Your task to perform on an android device: check data usage Image 0: 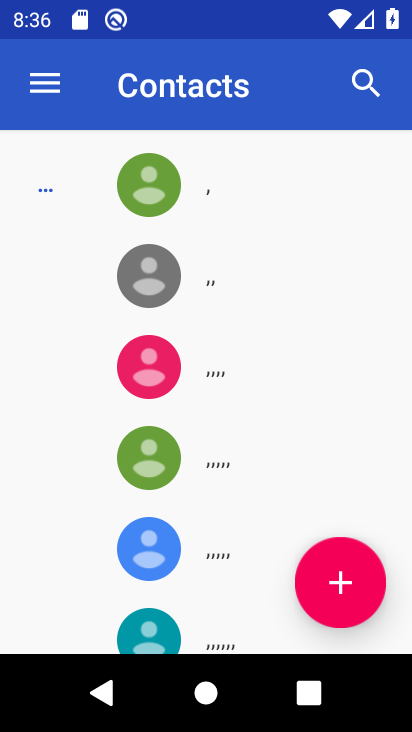
Step 0: press home button
Your task to perform on an android device: check data usage Image 1: 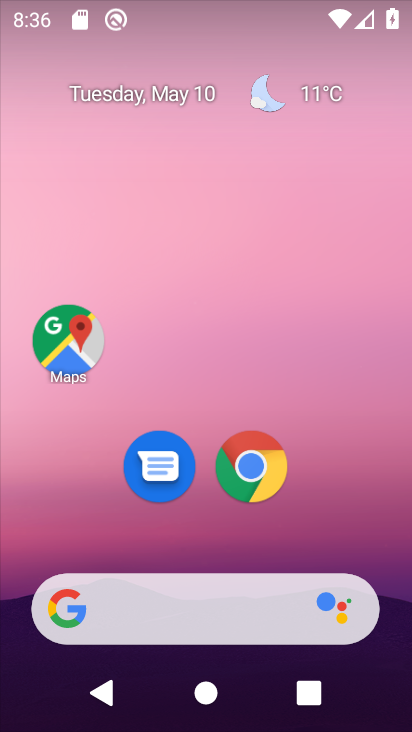
Step 1: drag from (209, 540) to (294, 0)
Your task to perform on an android device: check data usage Image 2: 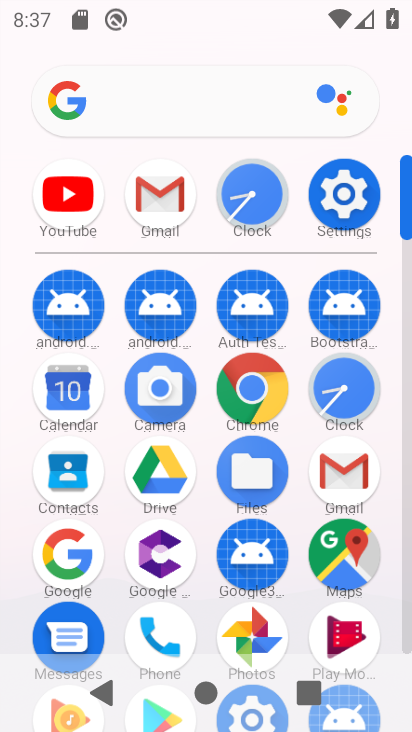
Step 2: click (342, 197)
Your task to perform on an android device: check data usage Image 3: 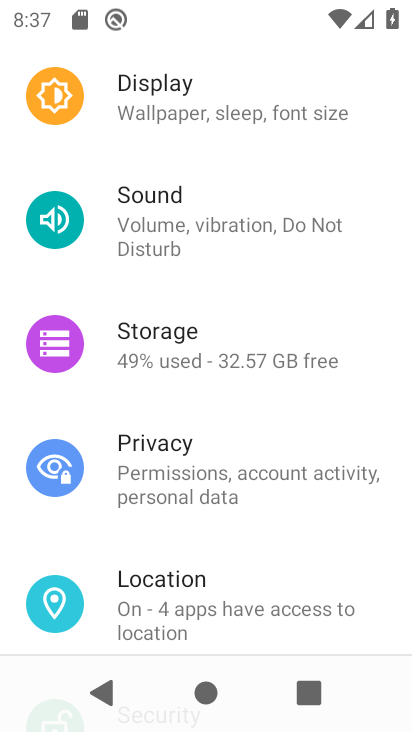
Step 3: drag from (256, 231) to (211, 632)
Your task to perform on an android device: check data usage Image 4: 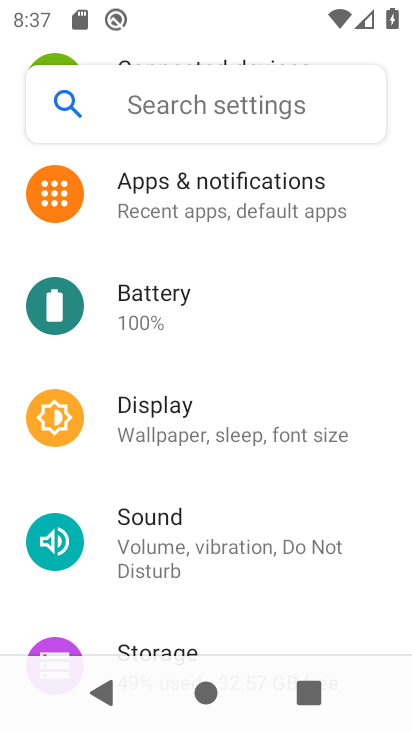
Step 4: drag from (202, 549) to (200, 659)
Your task to perform on an android device: check data usage Image 5: 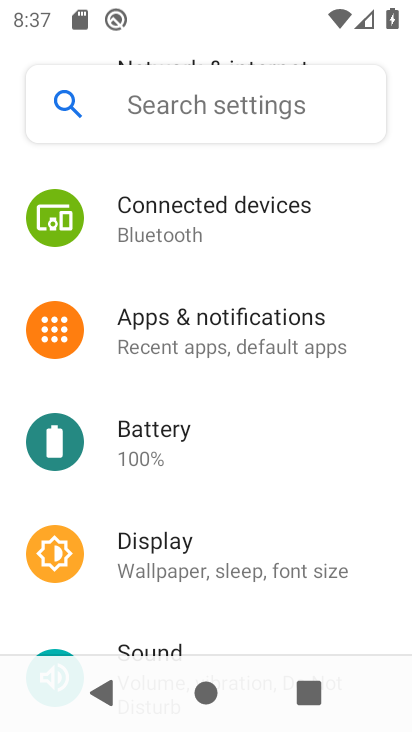
Step 5: drag from (205, 212) to (233, 731)
Your task to perform on an android device: check data usage Image 6: 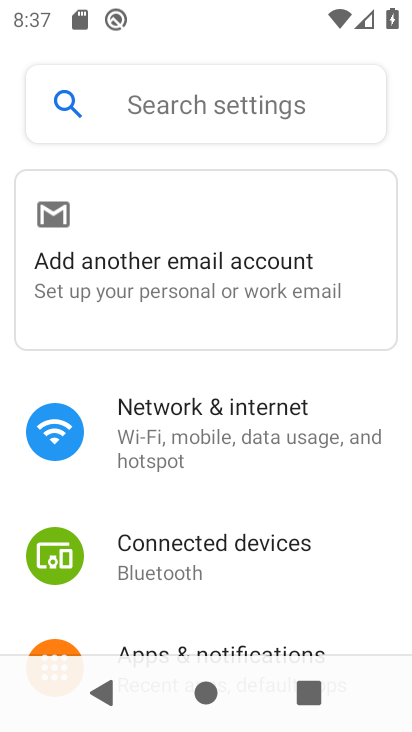
Step 6: drag from (248, 568) to (248, 498)
Your task to perform on an android device: check data usage Image 7: 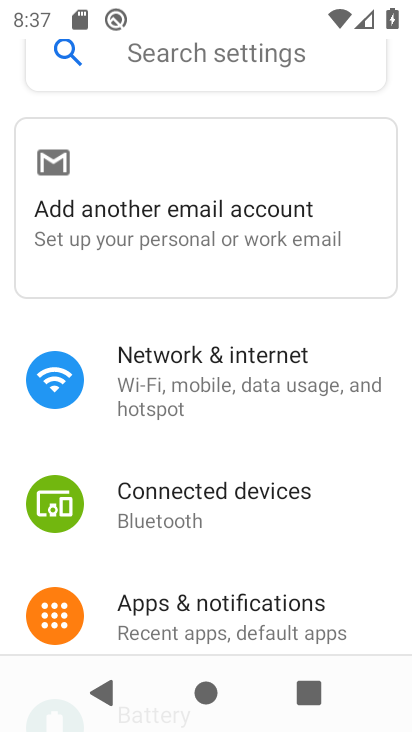
Step 7: click (203, 391)
Your task to perform on an android device: check data usage Image 8: 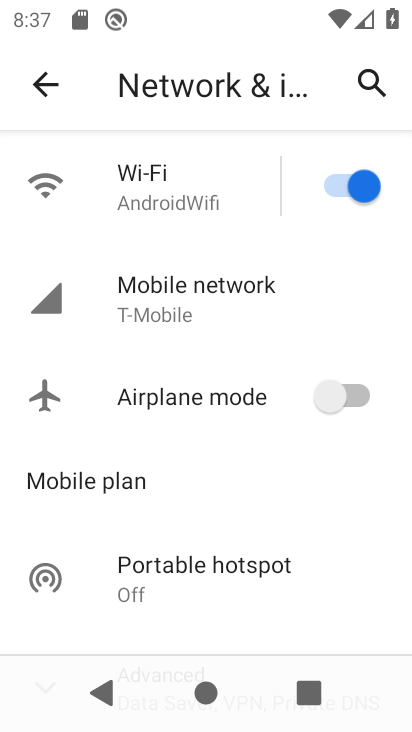
Step 8: click (192, 305)
Your task to perform on an android device: check data usage Image 9: 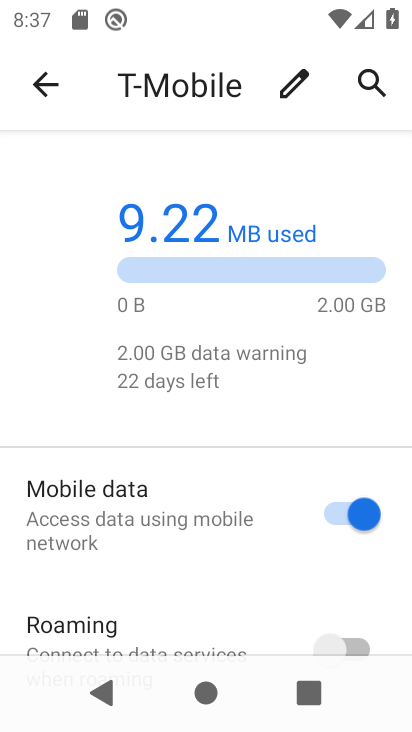
Step 9: drag from (217, 527) to (244, 147)
Your task to perform on an android device: check data usage Image 10: 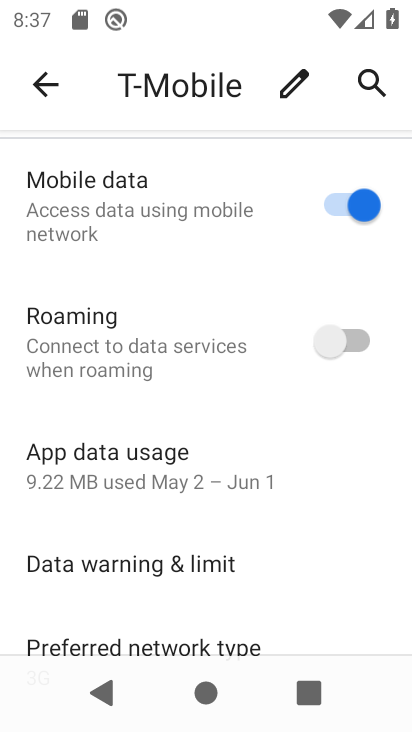
Step 10: click (148, 478)
Your task to perform on an android device: check data usage Image 11: 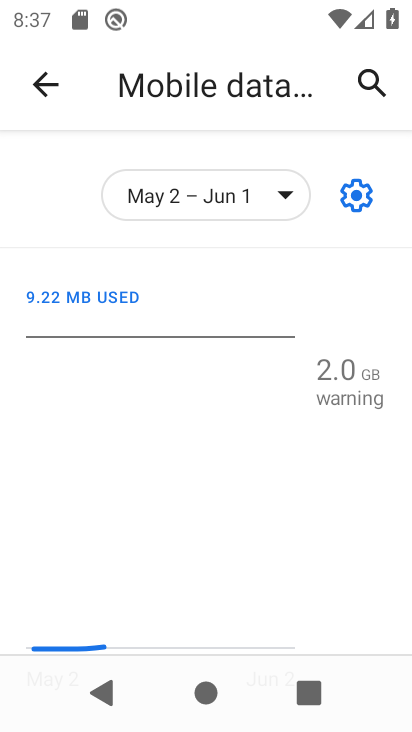
Step 11: task complete